Your task to perform on an android device: Do I have any events this weekend? Image 0: 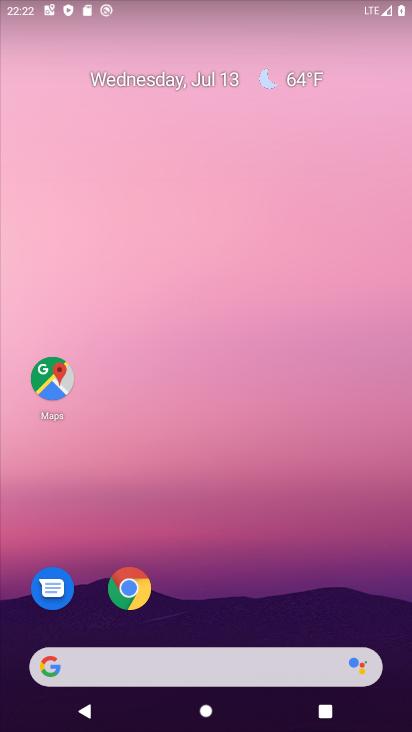
Step 0: drag from (201, 641) to (265, 10)
Your task to perform on an android device: Do I have any events this weekend? Image 1: 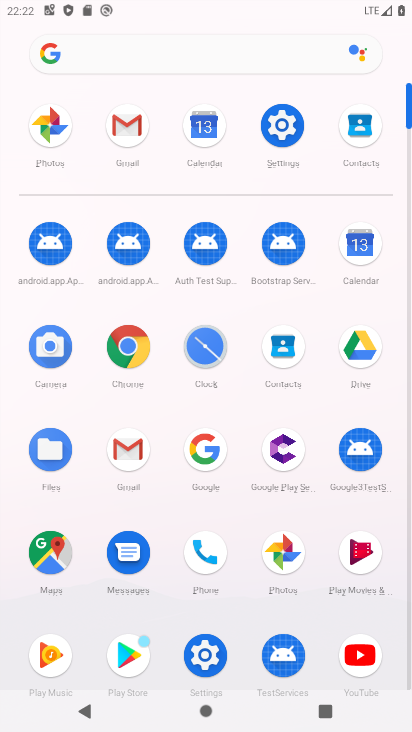
Step 1: click (368, 235)
Your task to perform on an android device: Do I have any events this weekend? Image 2: 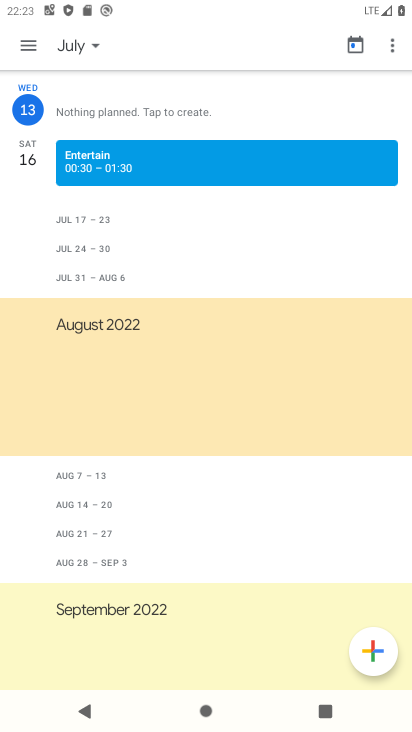
Step 2: click (73, 51)
Your task to perform on an android device: Do I have any events this weekend? Image 3: 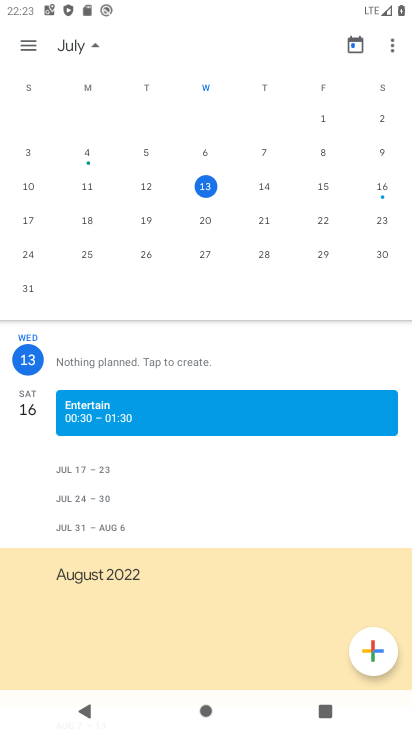
Step 3: click (381, 188)
Your task to perform on an android device: Do I have any events this weekend? Image 4: 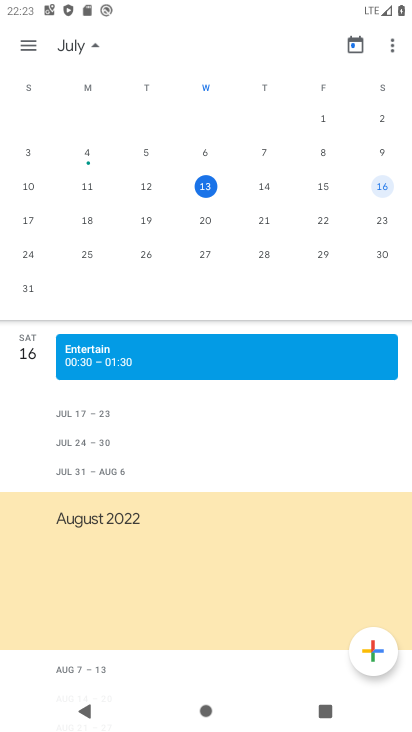
Step 4: task complete